Your task to perform on an android device: move an email to a new category in the gmail app Image 0: 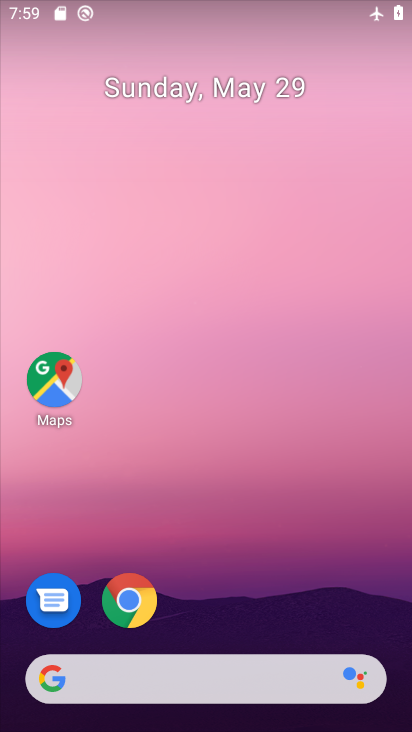
Step 0: drag from (226, 620) to (216, 346)
Your task to perform on an android device: move an email to a new category in the gmail app Image 1: 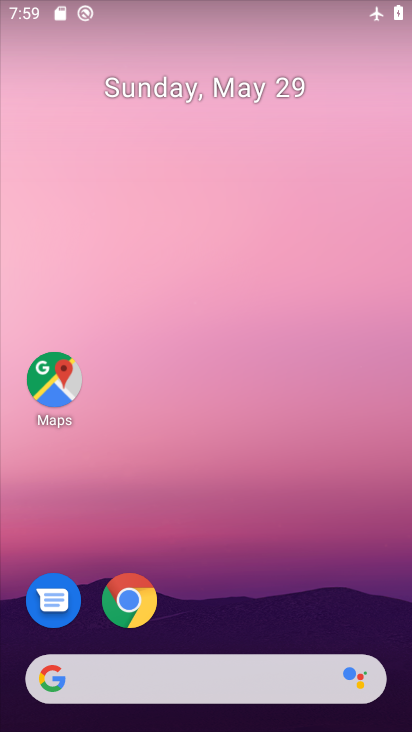
Step 1: drag from (216, 618) to (254, 29)
Your task to perform on an android device: move an email to a new category in the gmail app Image 2: 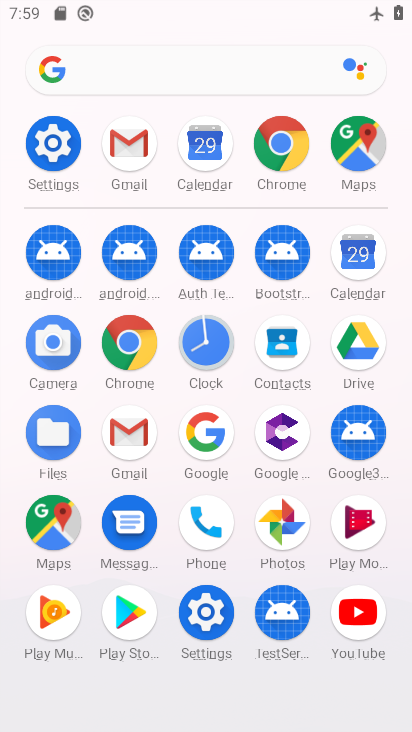
Step 2: click (127, 461)
Your task to perform on an android device: move an email to a new category in the gmail app Image 3: 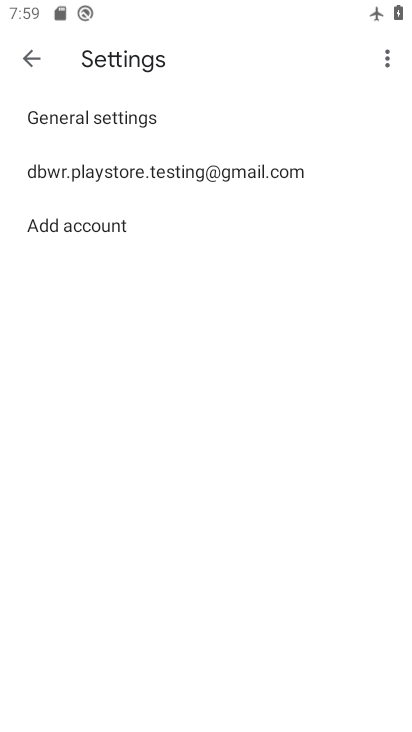
Step 3: click (32, 52)
Your task to perform on an android device: move an email to a new category in the gmail app Image 4: 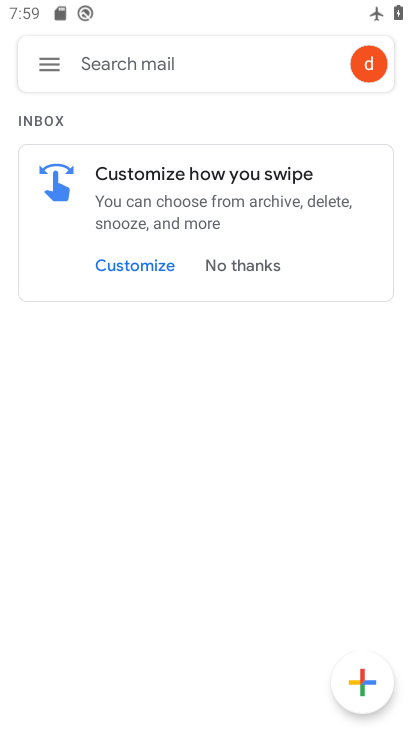
Step 4: task complete